Your task to perform on an android device: manage bookmarks in the chrome app Image 0: 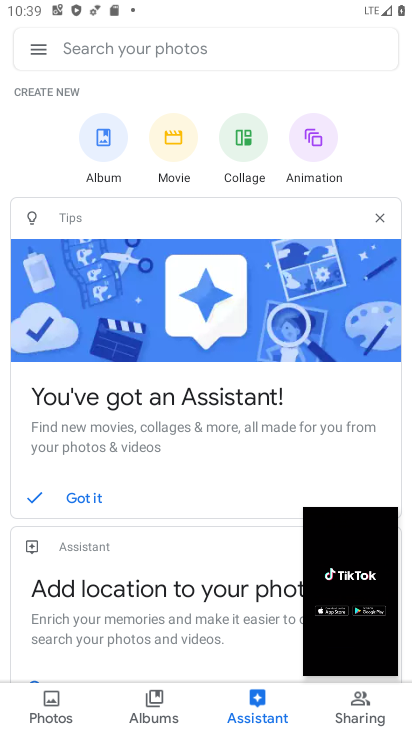
Step 0: click (383, 530)
Your task to perform on an android device: manage bookmarks in the chrome app Image 1: 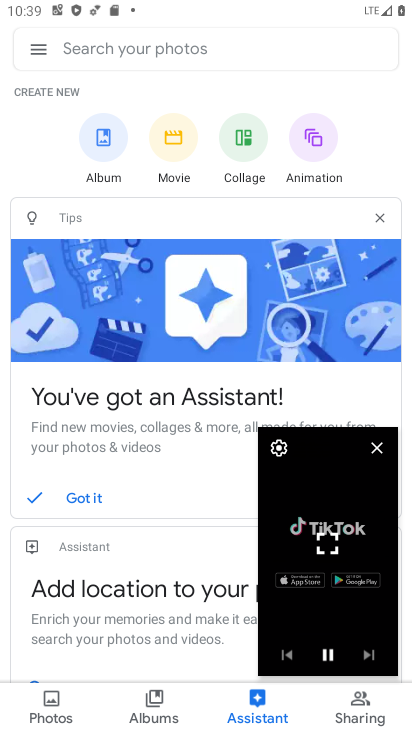
Step 1: click (384, 453)
Your task to perform on an android device: manage bookmarks in the chrome app Image 2: 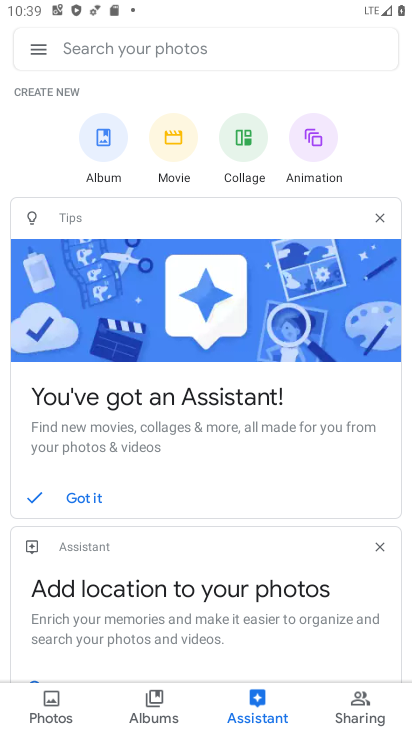
Step 2: press home button
Your task to perform on an android device: manage bookmarks in the chrome app Image 3: 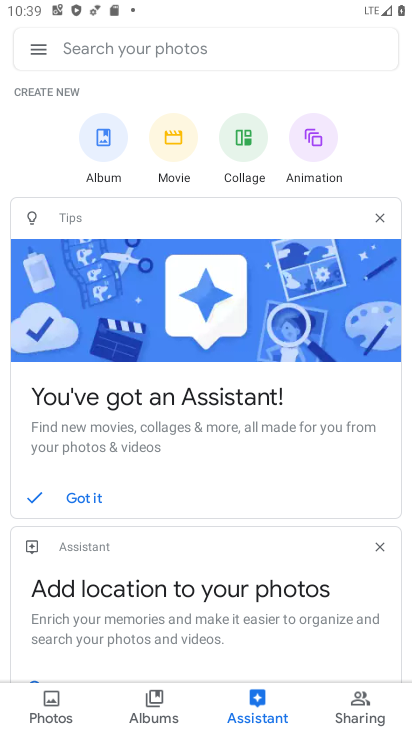
Step 3: press home button
Your task to perform on an android device: manage bookmarks in the chrome app Image 4: 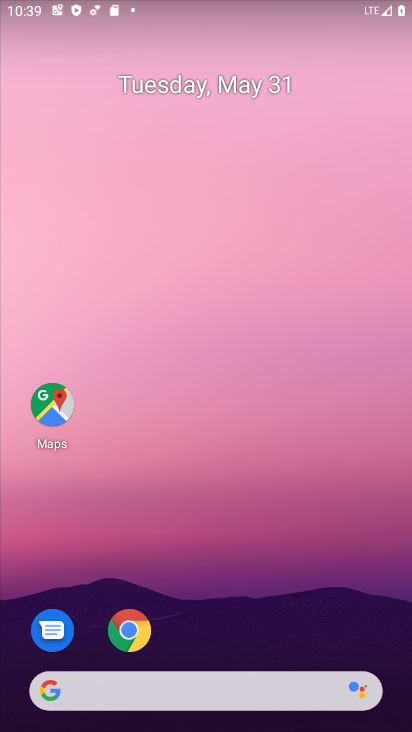
Step 4: drag from (221, 606) to (266, 81)
Your task to perform on an android device: manage bookmarks in the chrome app Image 5: 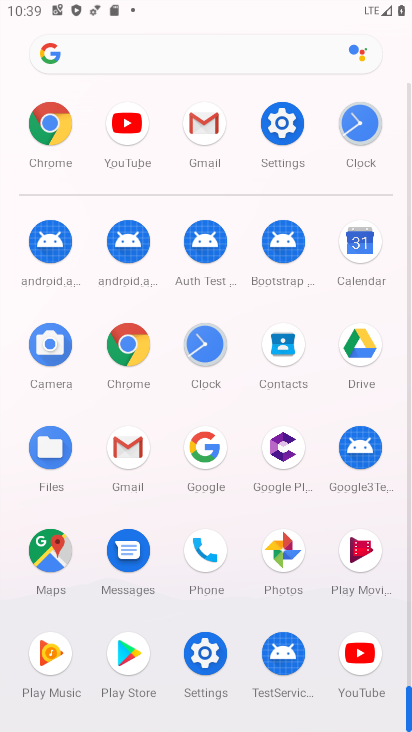
Step 5: click (133, 360)
Your task to perform on an android device: manage bookmarks in the chrome app Image 6: 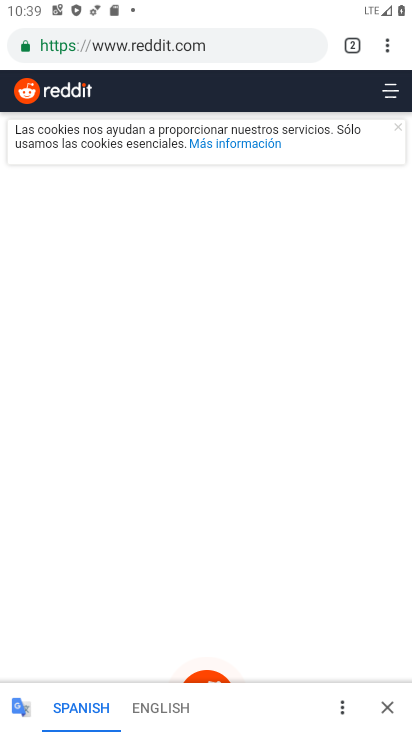
Step 6: click (386, 47)
Your task to perform on an android device: manage bookmarks in the chrome app Image 7: 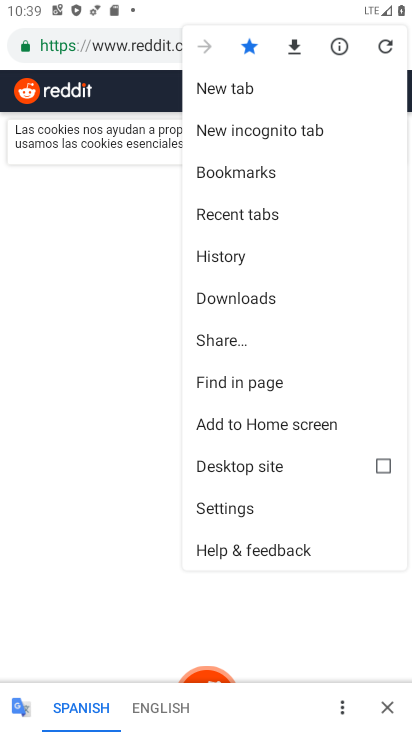
Step 7: click (266, 174)
Your task to perform on an android device: manage bookmarks in the chrome app Image 8: 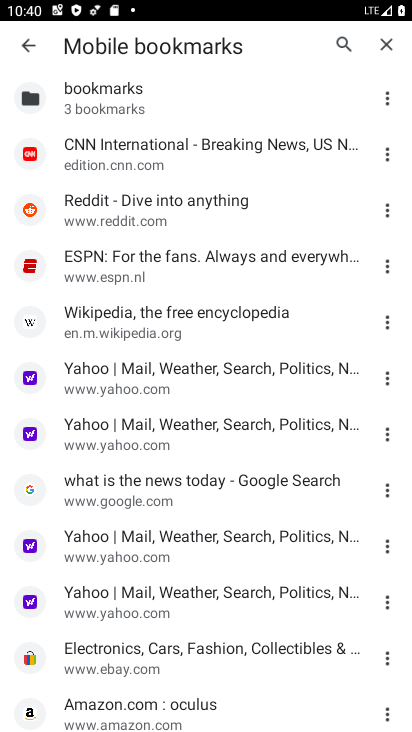
Step 8: task complete